Your task to perform on an android device: Open the calendar app, open the side menu, and click the "Day" option Image 0: 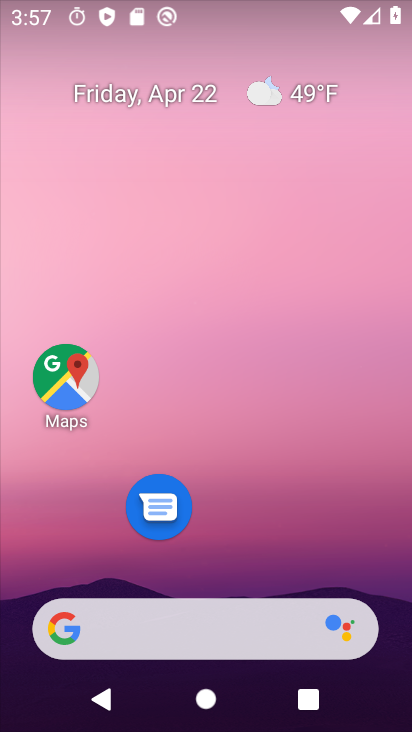
Step 0: drag from (218, 548) to (286, 74)
Your task to perform on an android device: Open the calendar app, open the side menu, and click the "Day" option Image 1: 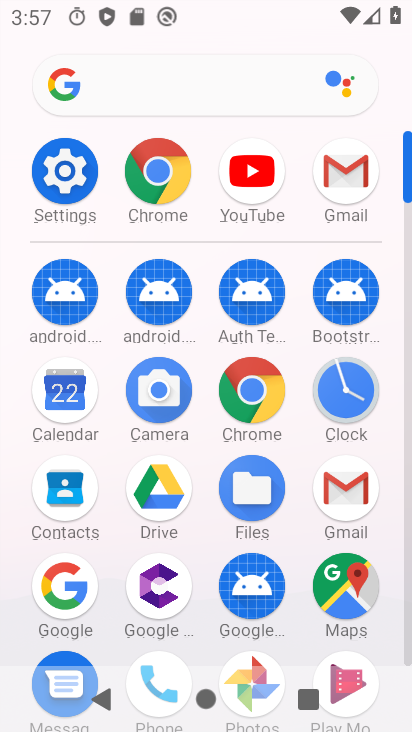
Step 1: click (76, 378)
Your task to perform on an android device: Open the calendar app, open the side menu, and click the "Day" option Image 2: 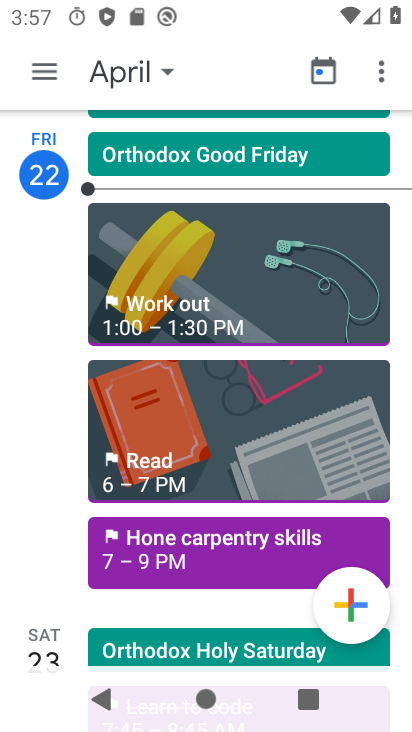
Step 2: click (48, 64)
Your task to perform on an android device: Open the calendar app, open the side menu, and click the "Day" option Image 3: 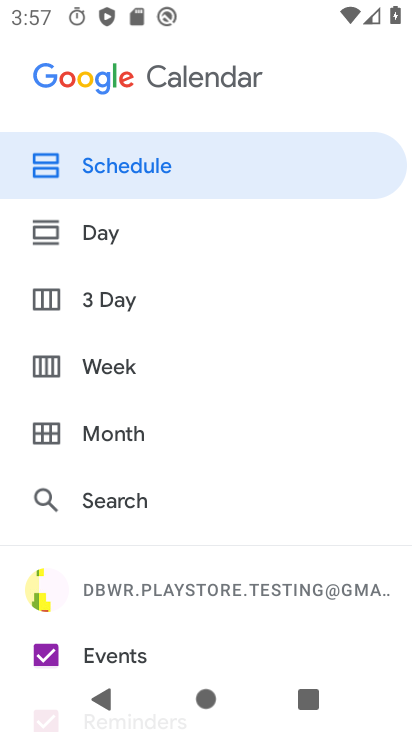
Step 3: click (101, 226)
Your task to perform on an android device: Open the calendar app, open the side menu, and click the "Day" option Image 4: 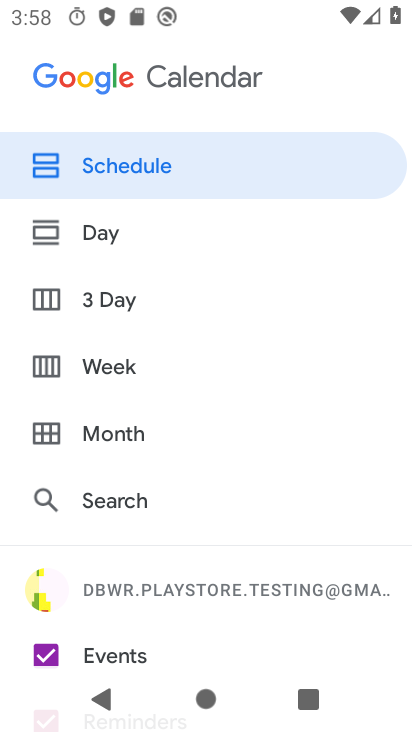
Step 4: click (109, 222)
Your task to perform on an android device: Open the calendar app, open the side menu, and click the "Day" option Image 5: 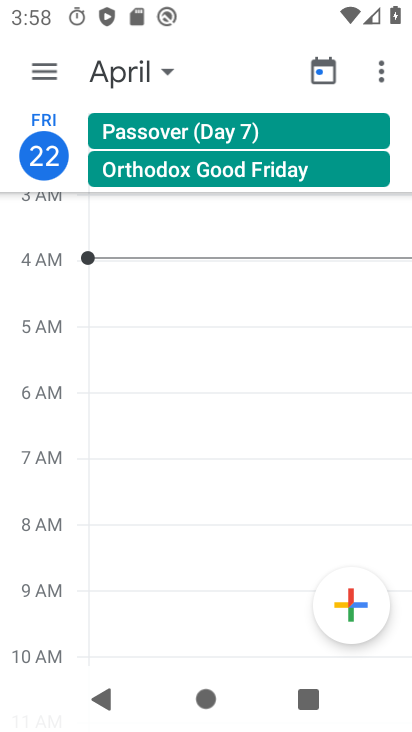
Step 5: task complete